Your task to perform on an android device: delete a single message in the gmail app Image 0: 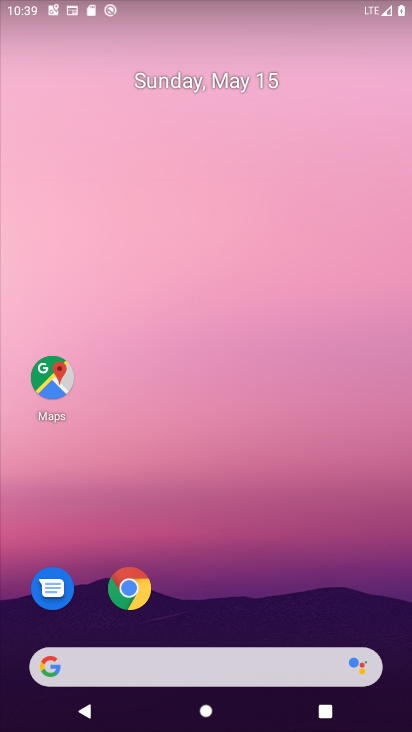
Step 0: drag from (255, 605) to (255, 48)
Your task to perform on an android device: delete a single message in the gmail app Image 1: 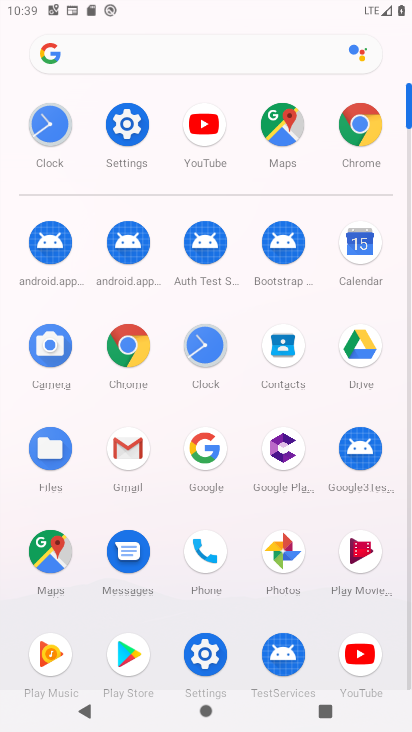
Step 1: click (117, 442)
Your task to perform on an android device: delete a single message in the gmail app Image 2: 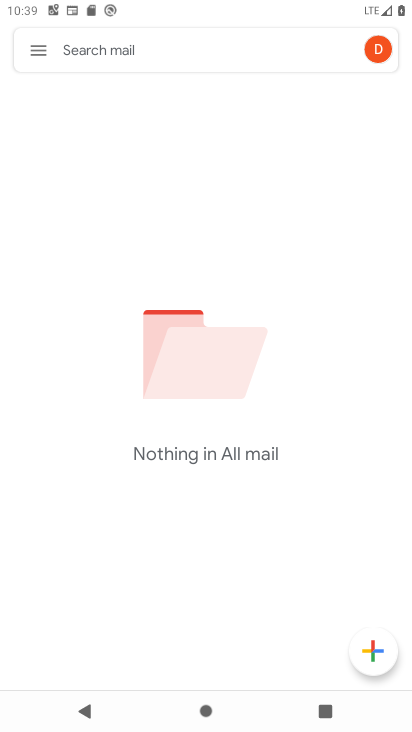
Step 2: click (35, 51)
Your task to perform on an android device: delete a single message in the gmail app Image 3: 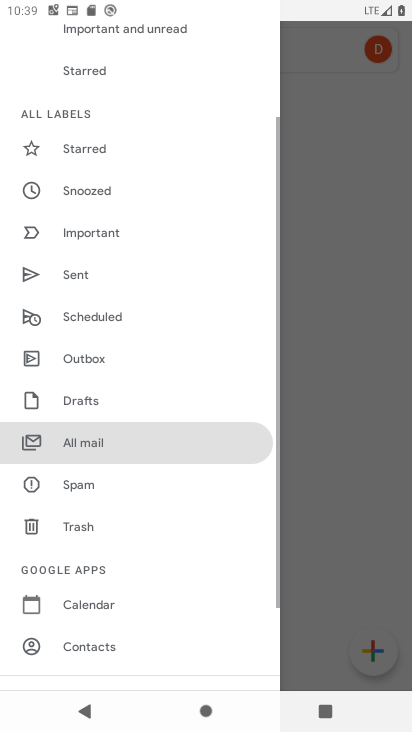
Step 3: drag from (100, 123) to (123, 570)
Your task to perform on an android device: delete a single message in the gmail app Image 4: 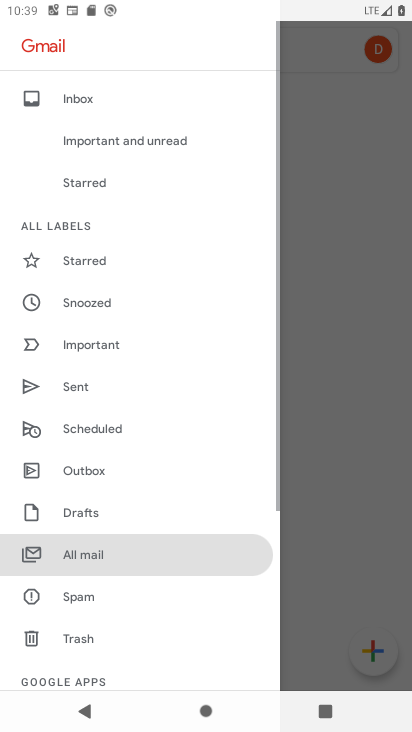
Step 4: click (94, 101)
Your task to perform on an android device: delete a single message in the gmail app Image 5: 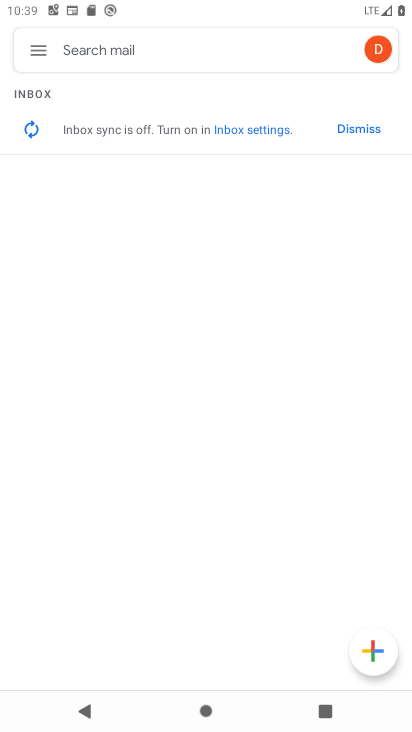
Step 5: task complete